Your task to perform on an android device: toggle javascript in the chrome app Image 0: 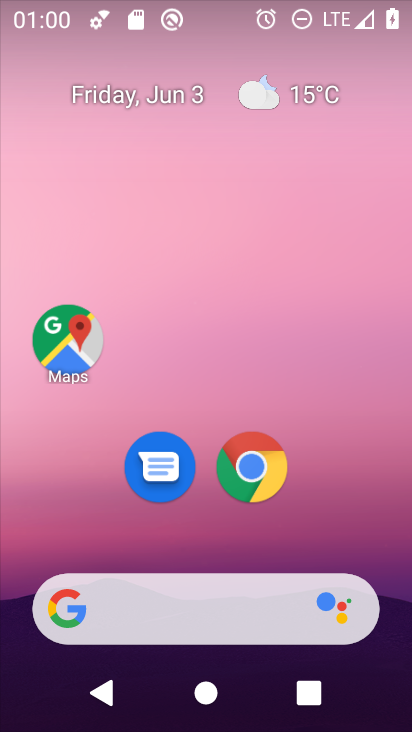
Step 0: click (252, 465)
Your task to perform on an android device: toggle javascript in the chrome app Image 1: 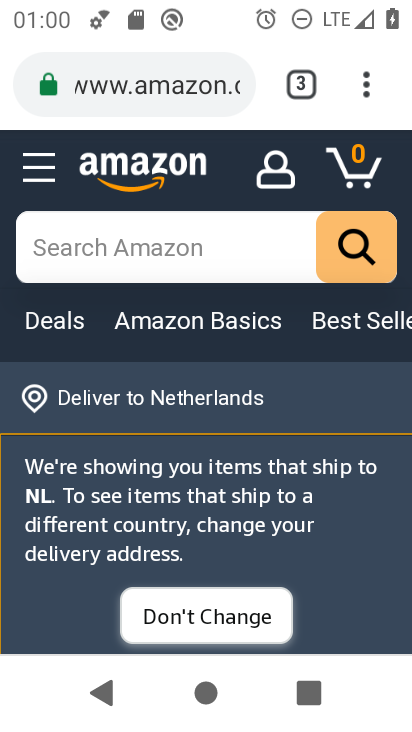
Step 1: click (367, 90)
Your task to perform on an android device: toggle javascript in the chrome app Image 2: 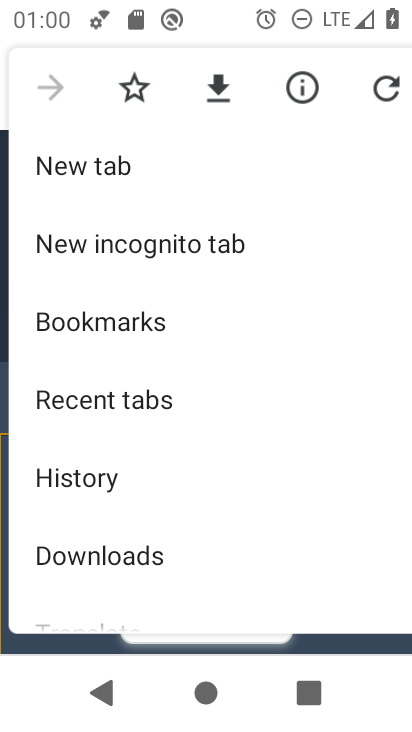
Step 2: drag from (200, 568) to (294, 169)
Your task to perform on an android device: toggle javascript in the chrome app Image 3: 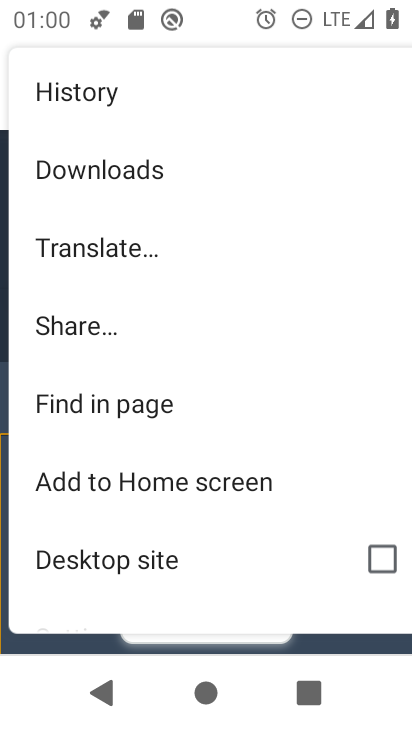
Step 3: drag from (289, 538) to (250, 173)
Your task to perform on an android device: toggle javascript in the chrome app Image 4: 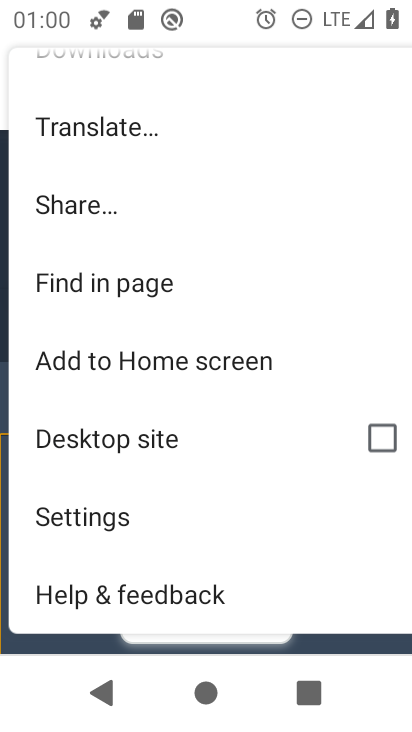
Step 4: click (82, 516)
Your task to perform on an android device: toggle javascript in the chrome app Image 5: 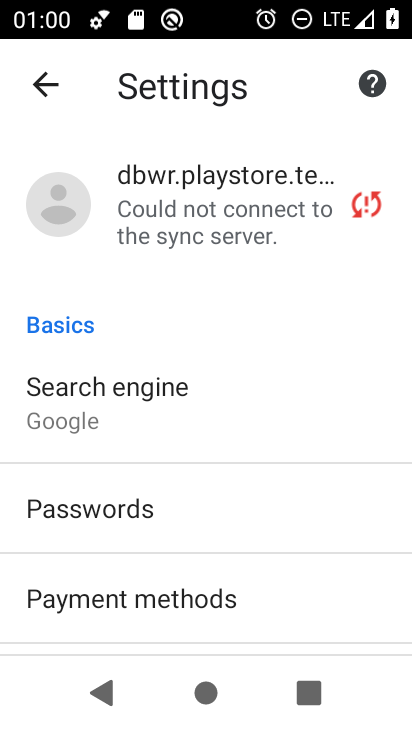
Step 5: drag from (296, 600) to (270, 119)
Your task to perform on an android device: toggle javascript in the chrome app Image 6: 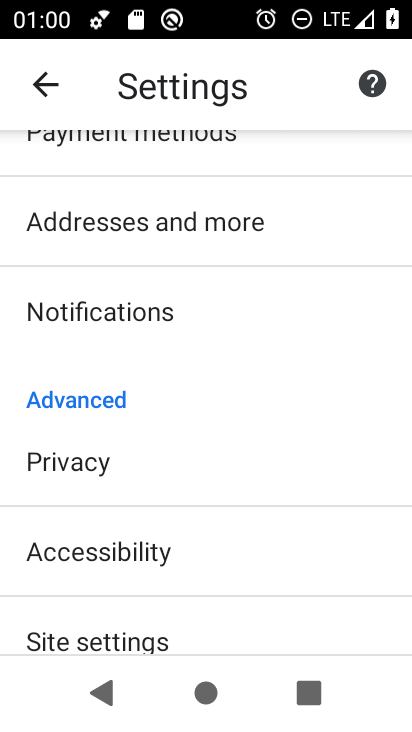
Step 6: drag from (187, 626) to (252, 237)
Your task to perform on an android device: toggle javascript in the chrome app Image 7: 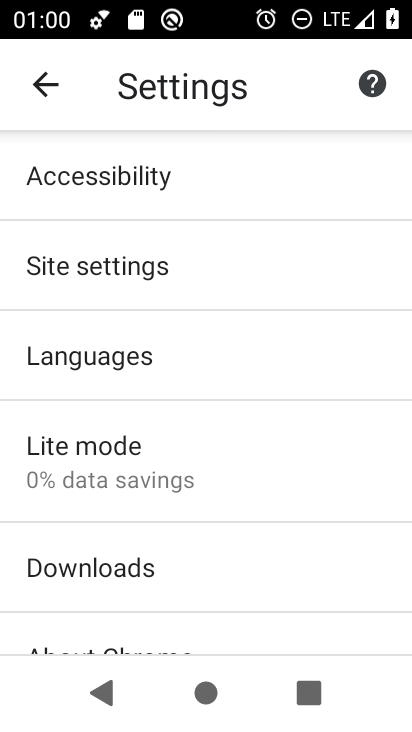
Step 7: click (79, 263)
Your task to perform on an android device: toggle javascript in the chrome app Image 8: 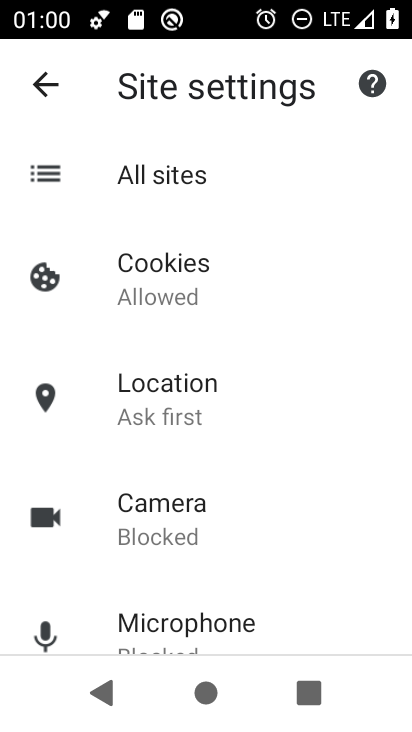
Step 8: drag from (270, 528) to (302, 83)
Your task to perform on an android device: toggle javascript in the chrome app Image 9: 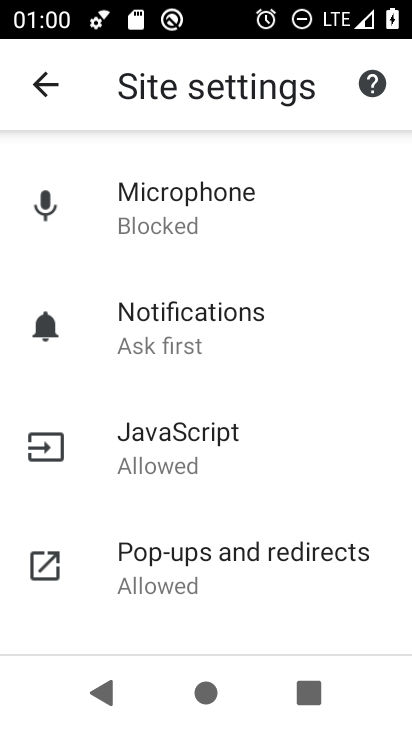
Step 9: drag from (295, 575) to (284, 147)
Your task to perform on an android device: toggle javascript in the chrome app Image 10: 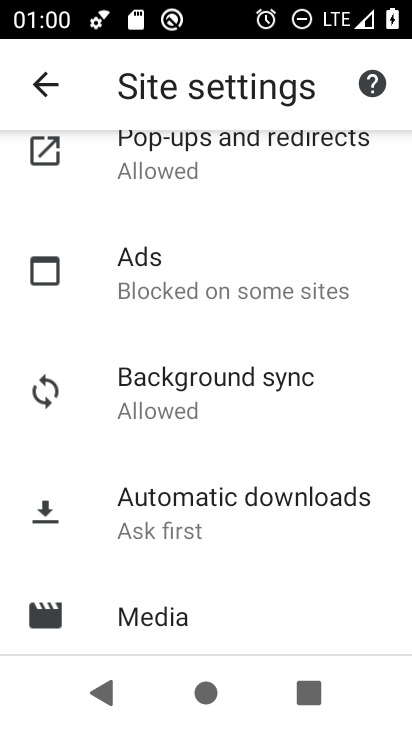
Step 10: drag from (265, 191) to (273, 435)
Your task to perform on an android device: toggle javascript in the chrome app Image 11: 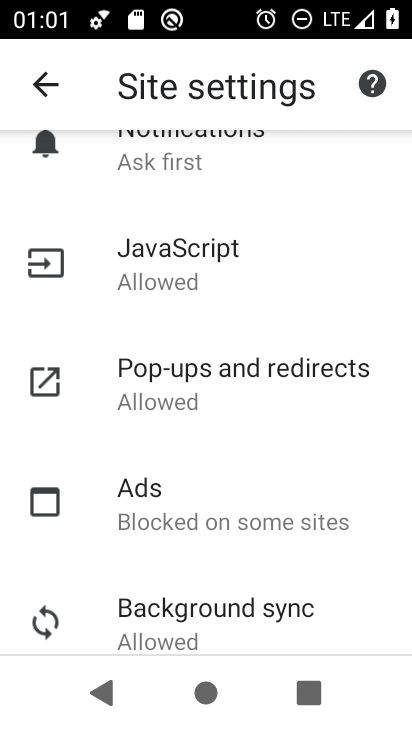
Step 11: click (152, 271)
Your task to perform on an android device: toggle javascript in the chrome app Image 12: 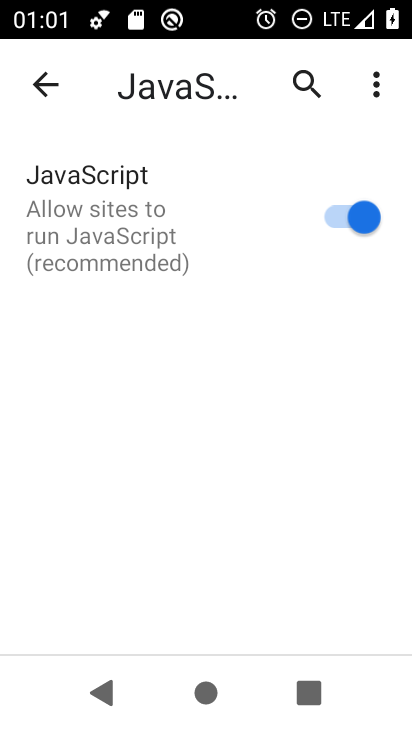
Step 12: click (325, 223)
Your task to perform on an android device: toggle javascript in the chrome app Image 13: 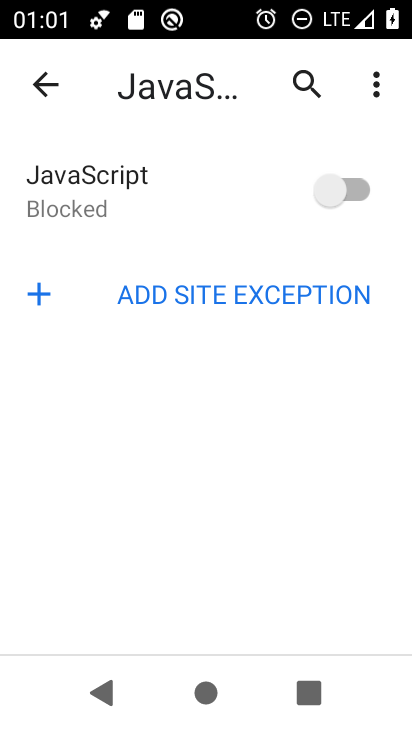
Step 13: task complete